Your task to perform on an android device: change the upload size in google photos Image 0: 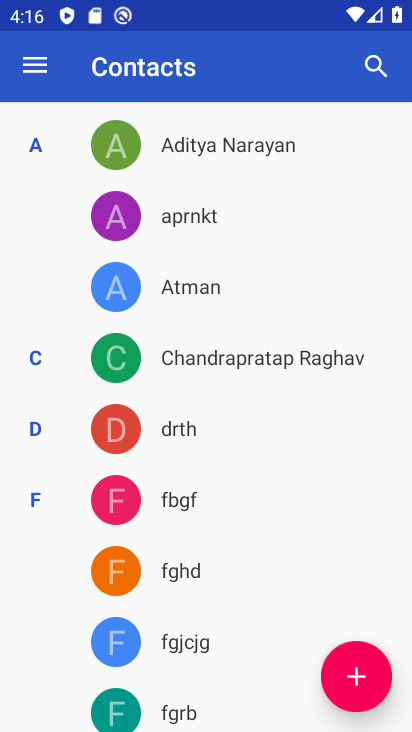
Step 0: press home button
Your task to perform on an android device: change the upload size in google photos Image 1: 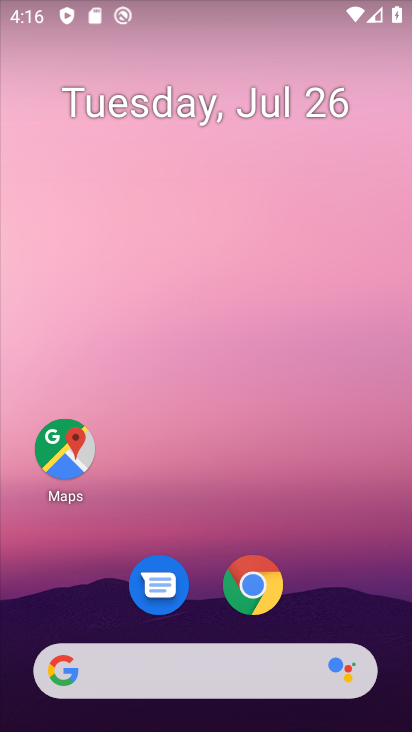
Step 1: drag from (352, 562) to (338, 63)
Your task to perform on an android device: change the upload size in google photos Image 2: 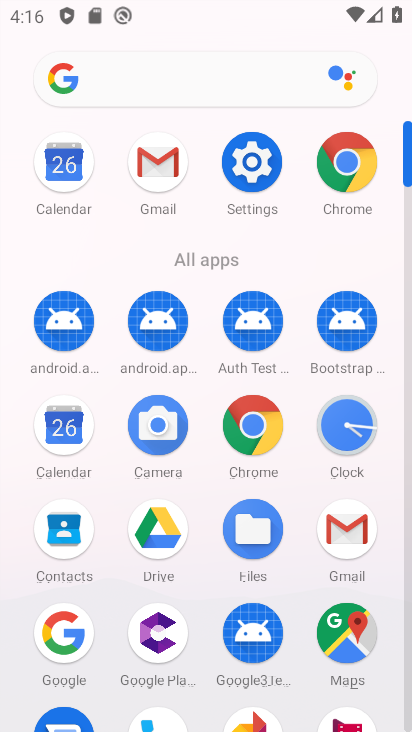
Step 2: drag from (290, 411) to (304, 207)
Your task to perform on an android device: change the upload size in google photos Image 3: 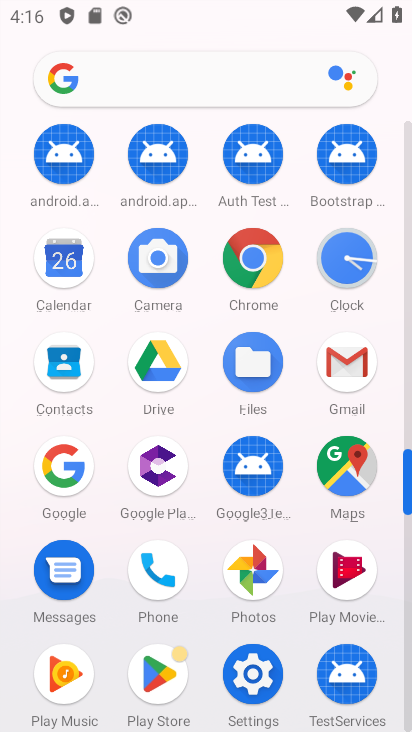
Step 3: click (268, 578)
Your task to perform on an android device: change the upload size in google photos Image 4: 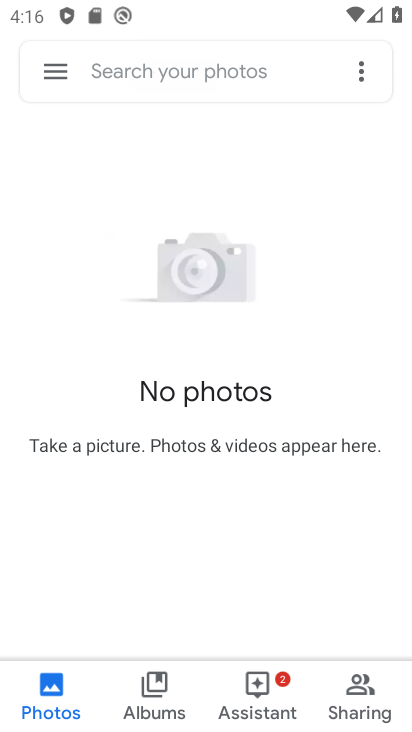
Step 4: click (57, 69)
Your task to perform on an android device: change the upload size in google photos Image 5: 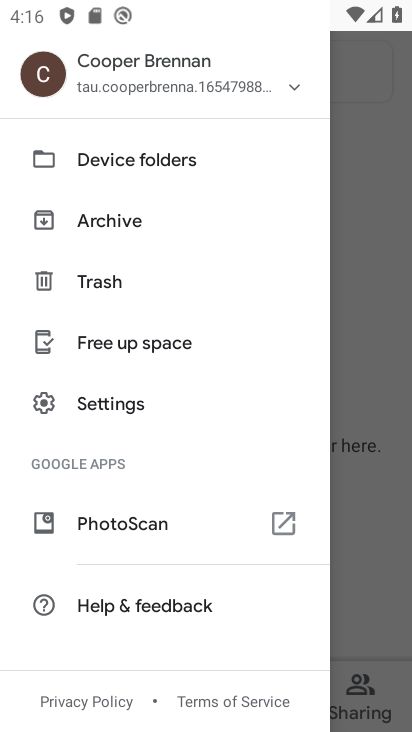
Step 5: click (132, 403)
Your task to perform on an android device: change the upload size in google photos Image 6: 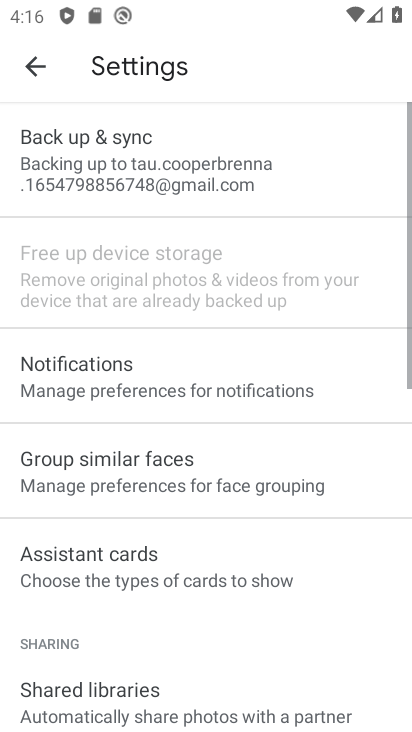
Step 6: click (109, 163)
Your task to perform on an android device: change the upload size in google photos Image 7: 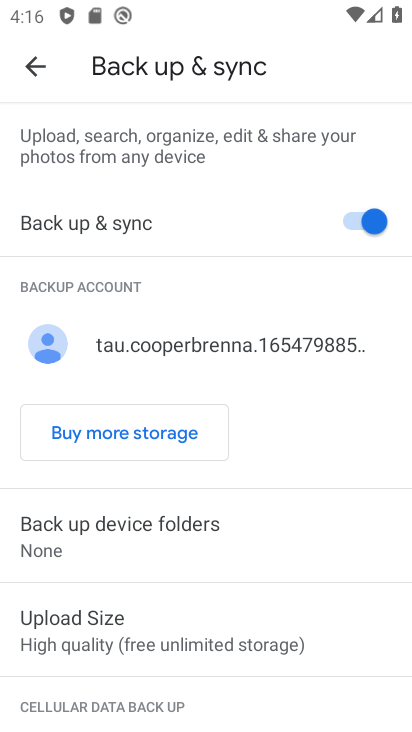
Step 7: click (185, 607)
Your task to perform on an android device: change the upload size in google photos Image 8: 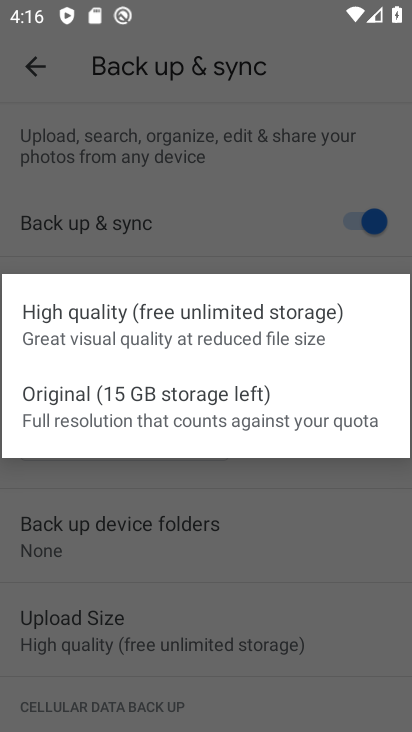
Step 8: click (154, 393)
Your task to perform on an android device: change the upload size in google photos Image 9: 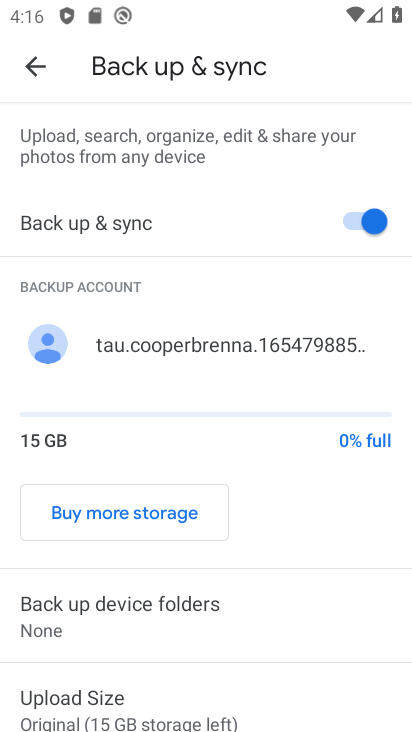
Step 9: task complete